Your task to perform on an android device: Go to Wikipedia Image 0: 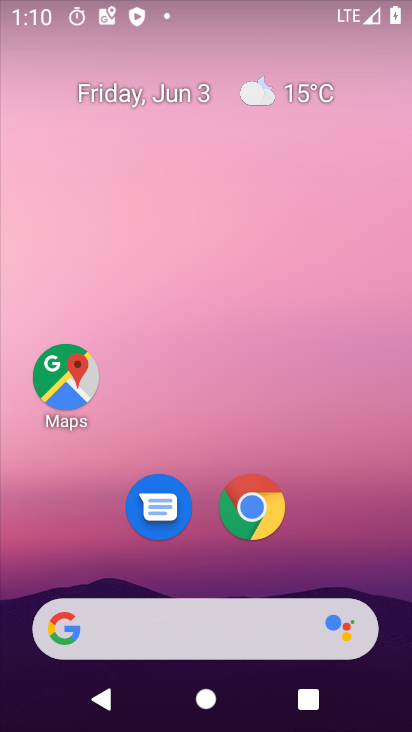
Step 0: drag from (383, 423) to (334, 145)
Your task to perform on an android device: Go to Wikipedia Image 1: 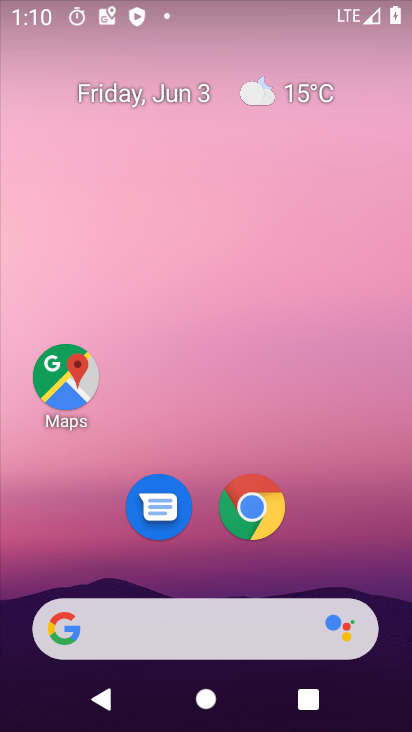
Step 1: click (396, 643)
Your task to perform on an android device: Go to Wikipedia Image 2: 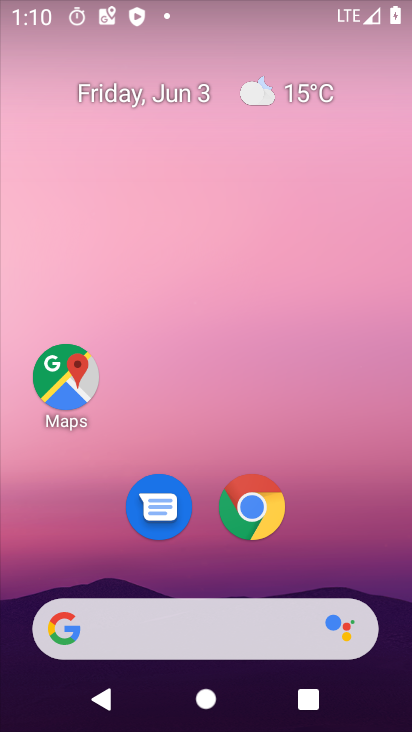
Step 2: drag from (387, 325) to (402, 593)
Your task to perform on an android device: Go to Wikipedia Image 3: 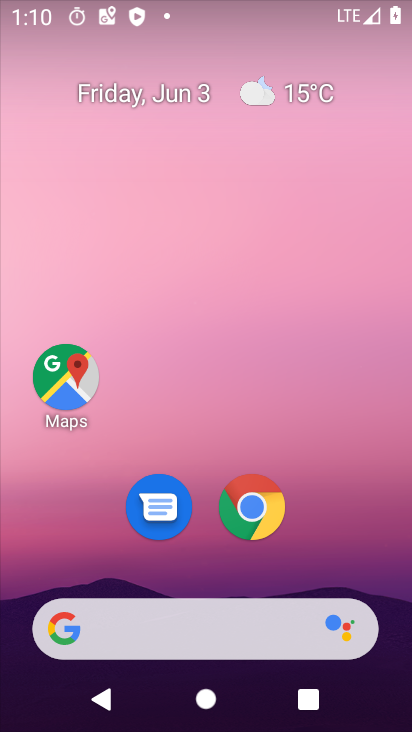
Step 3: click (392, 654)
Your task to perform on an android device: Go to Wikipedia Image 4: 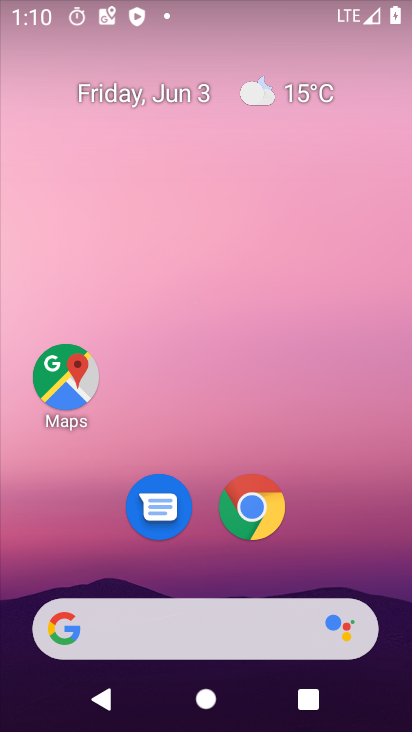
Step 4: drag from (386, 433) to (276, 67)
Your task to perform on an android device: Go to Wikipedia Image 5: 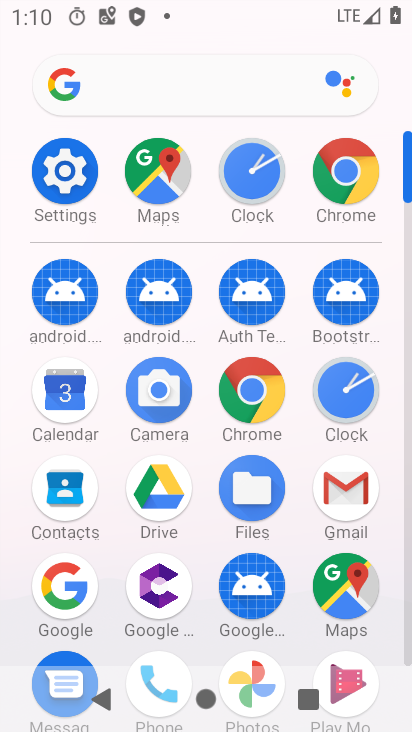
Step 5: click (86, 595)
Your task to perform on an android device: Go to Wikipedia Image 6: 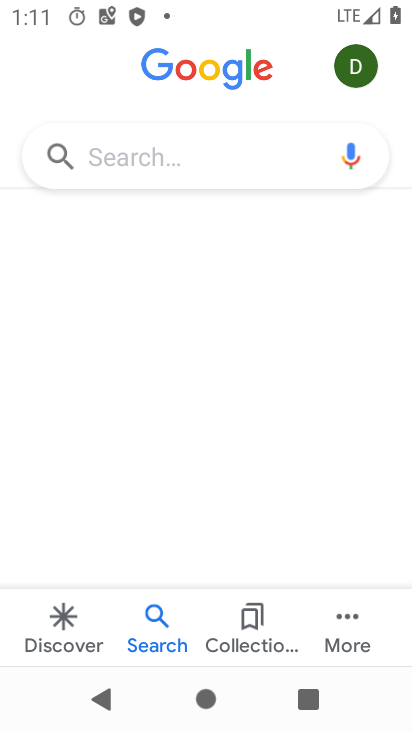
Step 6: click (147, 178)
Your task to perform on an android device: Go to Wikipedia Image 7: 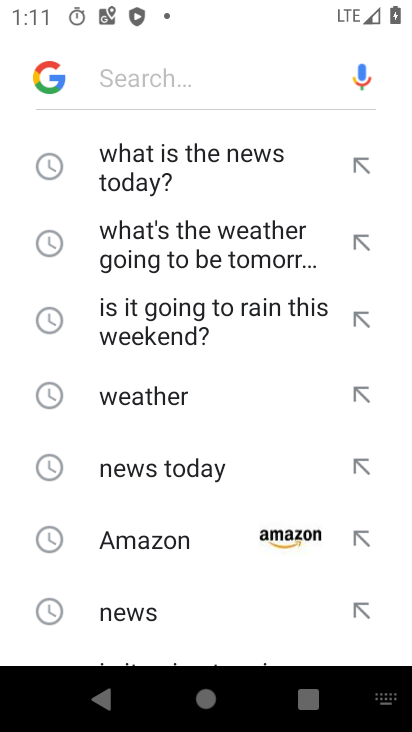
Step 7: drag from (132, 571) to (190, 282)
Your task to perform on an android device: Go to Wikipedia Image 8: 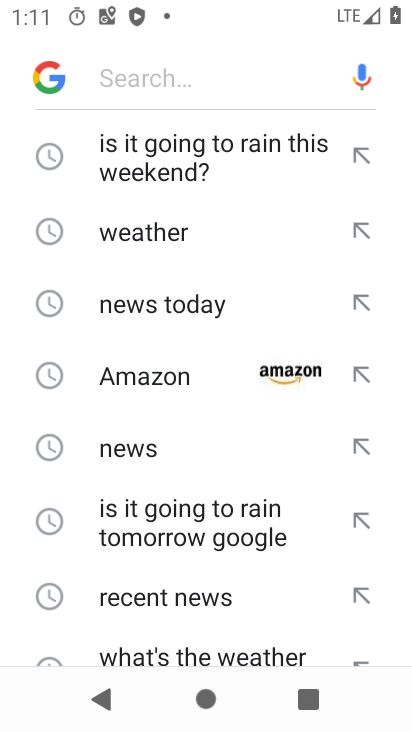
Step 8: drag from (158, 555) to (186, 45)
Your task to perform on an android device: Go to Wikipedia Image 9: 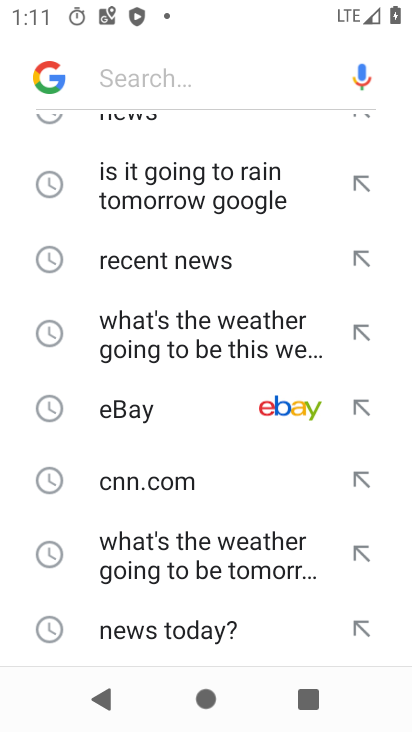
Step 9: drag from (183, 574) to (200, 74)
Your task to perform on an android device: Go to Wikipedia Image 10: 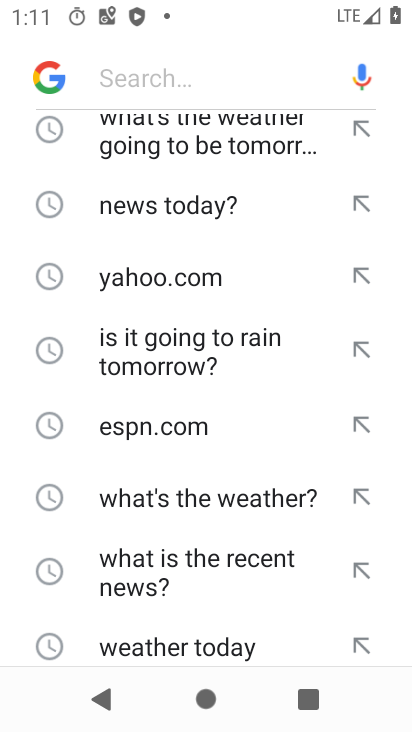
Step 10: drag from (216, 605) to (207, 109)
Your task to perform on an android device: Go to Wikipedia Image 11: 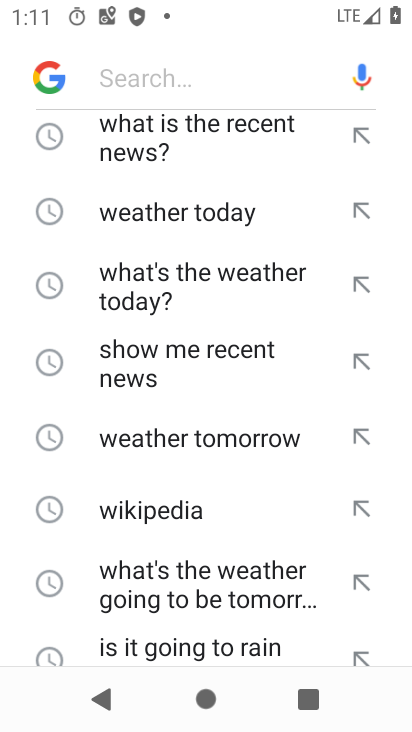
Step 11: click (188, 516)
Your task to perform on an android device: Go to Wikipedia Image 12: 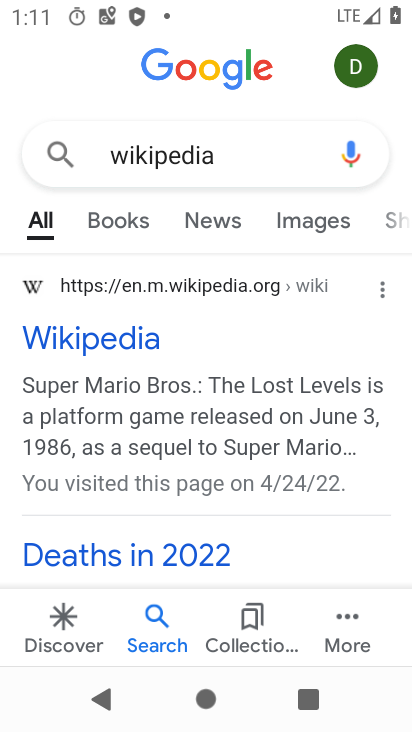
Step 12: task complete